Your task to perform on an android device: Do I have any events today? Image 0: 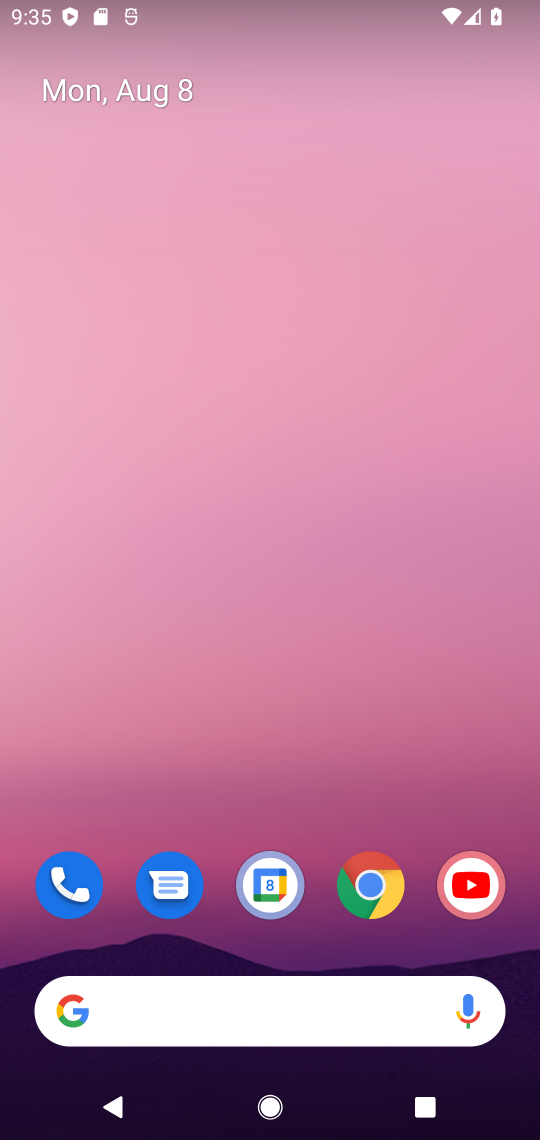
Step 0: drag from (151, 651) to (198, 249)
Your task to perform on an android device: Do I have any events today? Image 1: 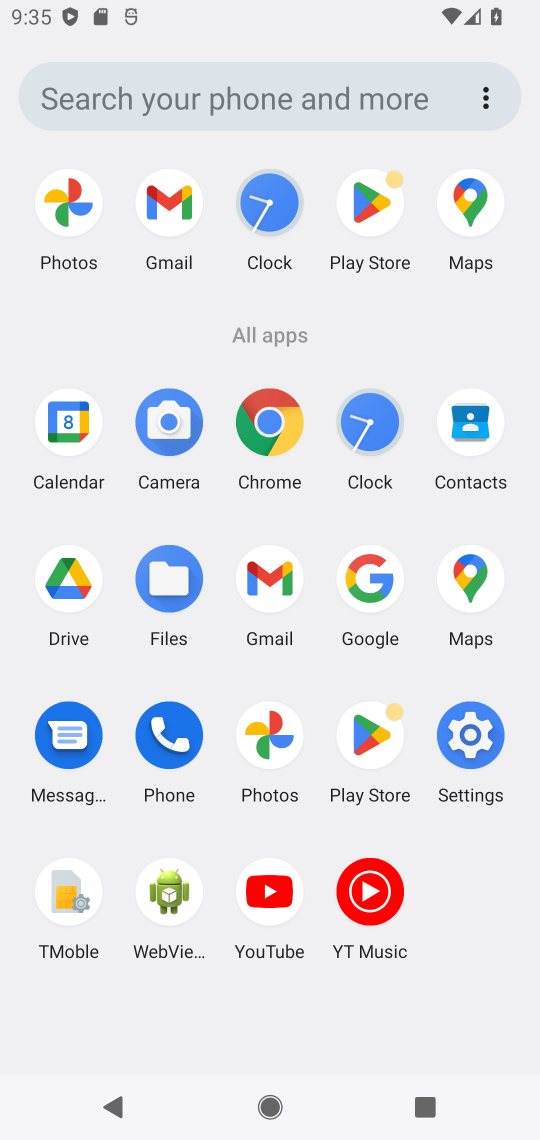
Step 1: click (65, 442)
Your task to perform on an android device: Do I have any events today? Image 2: 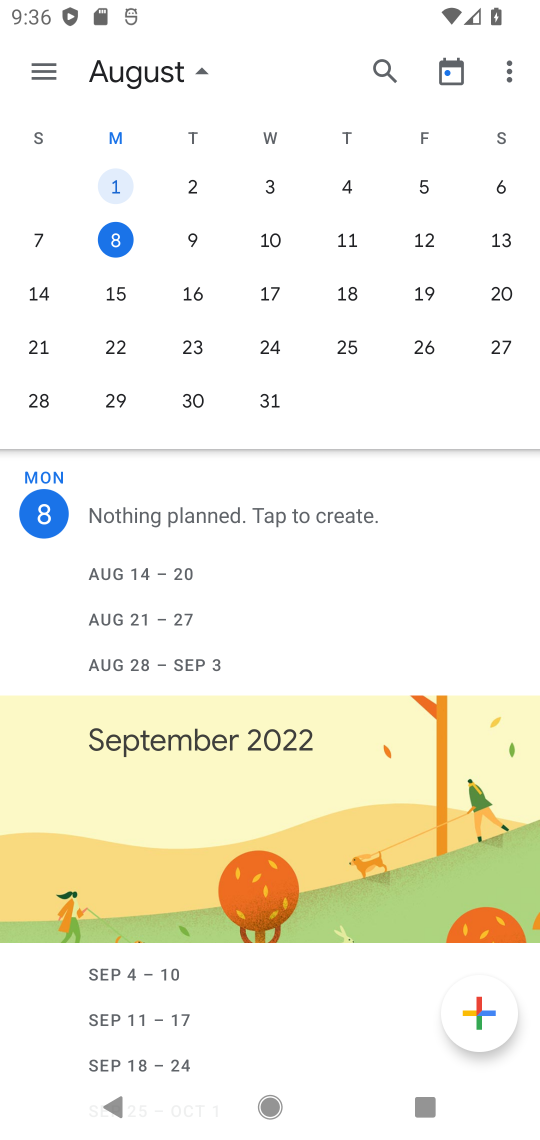
Step 2: click (56, 66)
Your task to perform on an android device: Do I have any events today? Image 3: 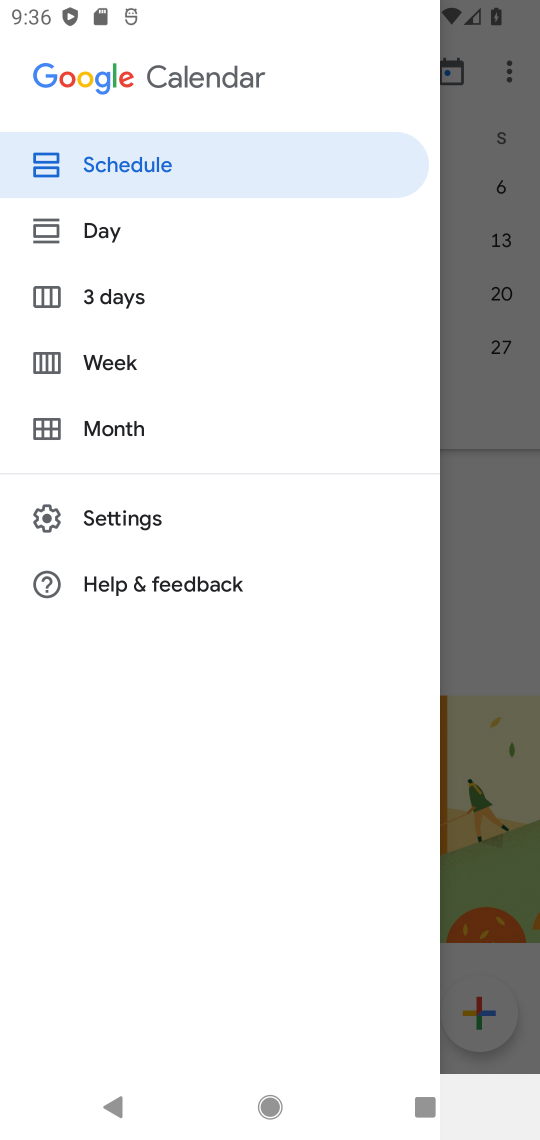
Step 3: click (190, 167)
Your task to perform on an android device: Do I have any events today? Image 4: 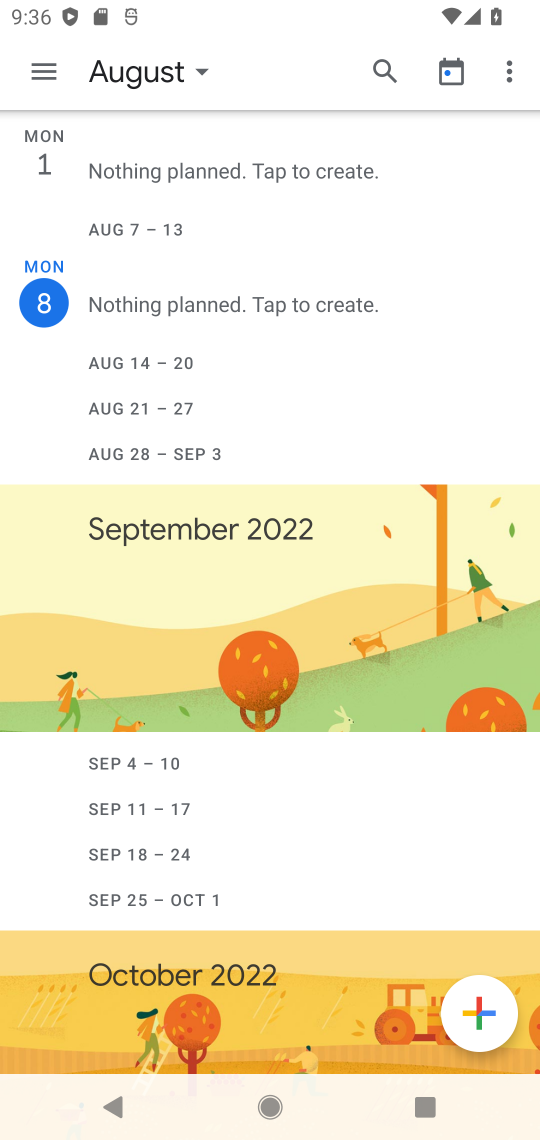
Step 4: task complete